Your task to perform on an android device: Search for flights from Buenos aires to Helsinki Image 0: 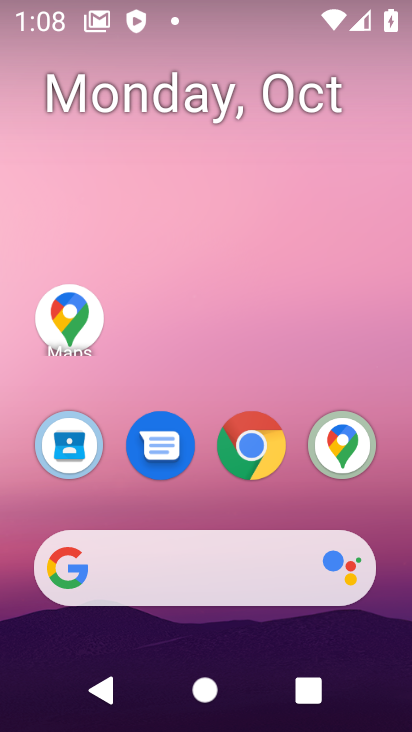
Step 0: click (174, 567)
Your task to perform on an android device: Search for flights from Buenos aires to Helsinki Image 1: 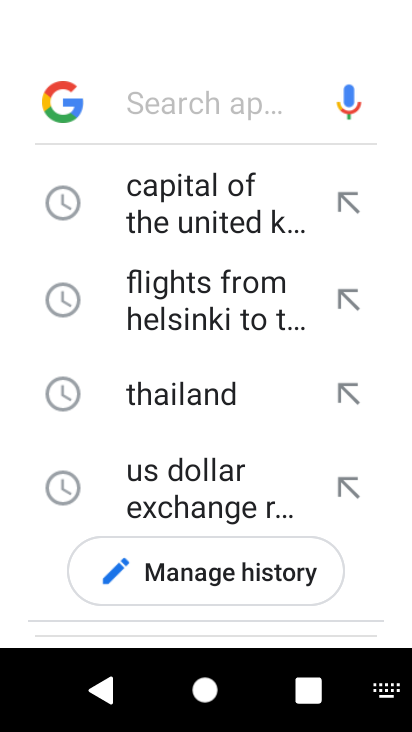
Step 1: type "flights from Buenos aires to Helsinki"
Your task to perform on an android device: Search for flights from Buenos aires to Helsinki Image 2: 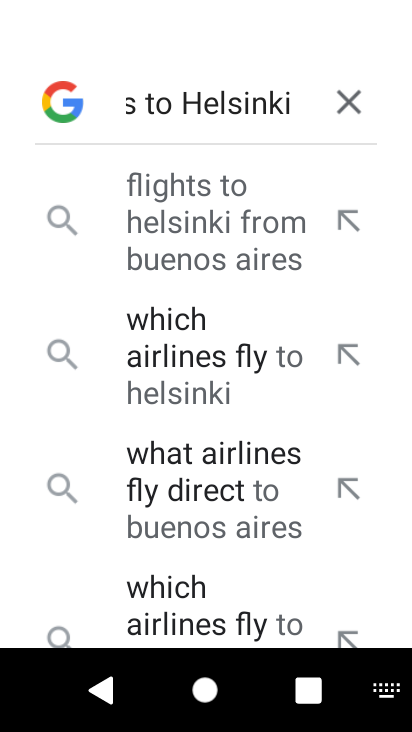
Step 2: type ""
Your task to perform on an android device: Search for flights from Buenos aires to Helsinki Image 3: 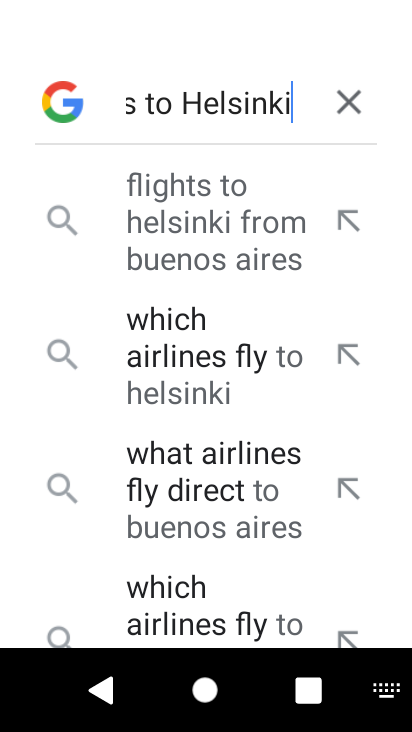
Step 3: click (217, 230)
Your task to perform on an android device: Search for flights from Buenos aires to Helsinki Image 4: 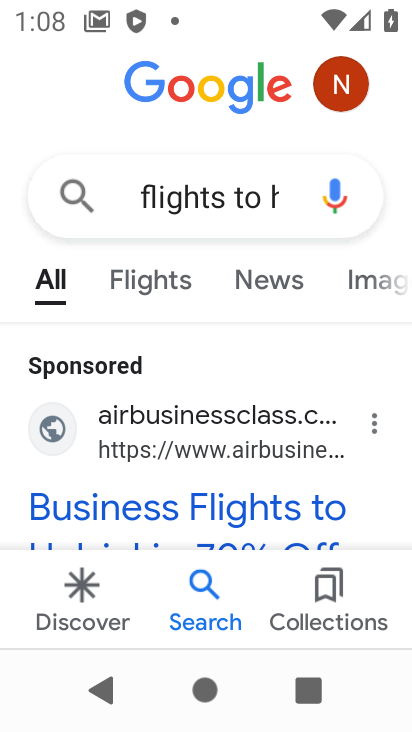
Step 4: task complete